Your task to perform on an android device: all mails in gmail Image 0: 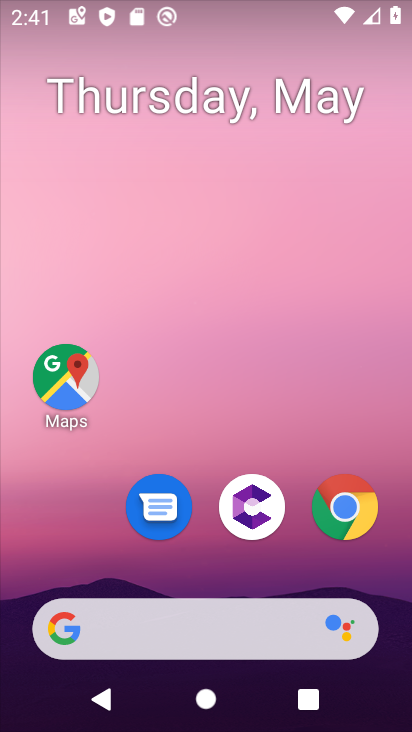
Step 0: press home button
Your task to perform on an android device: all mails in gmail Image 1: 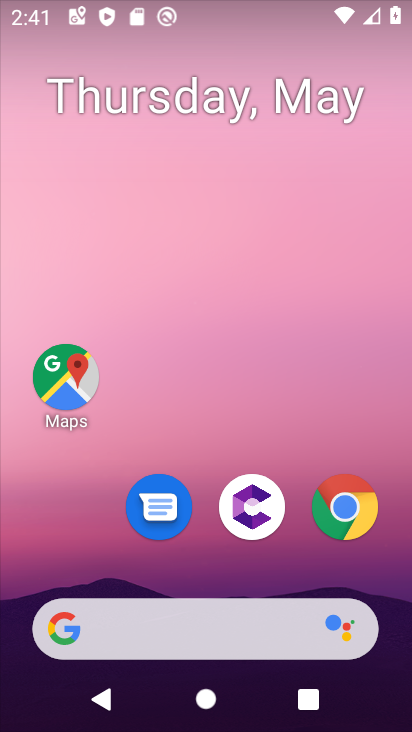
Step 1: drag from (166, 569) to (142, 208)
Your task to perform on an android device: all mails in gmail Image 2: 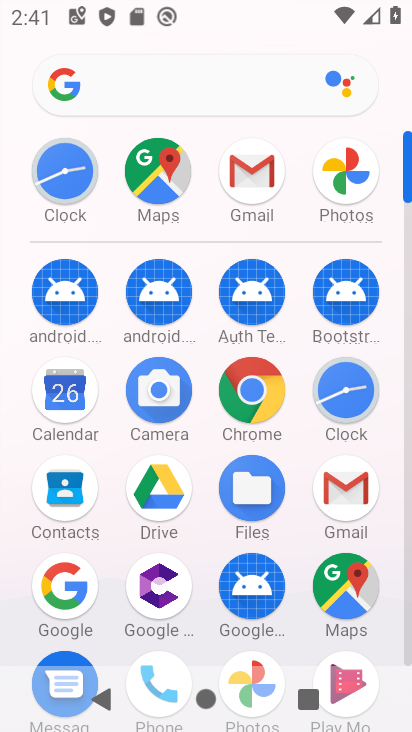
Step 2: click (262, 178)
Your task to perform on an android device: all mails in gmail Image 3: 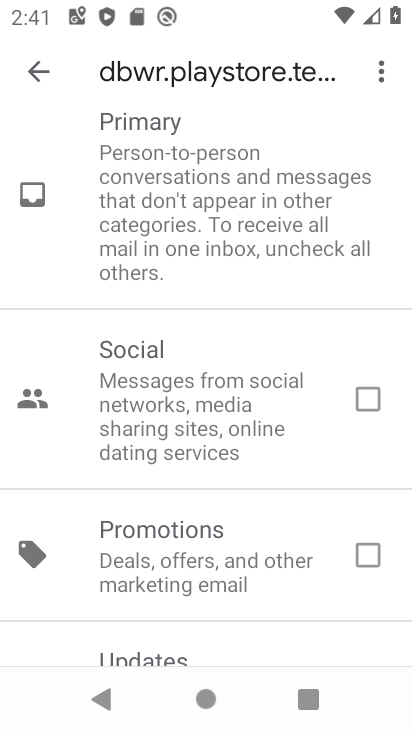
Step 3: click (42, 85)
Your task to perform on an android device: all mails in gmail Image 4: 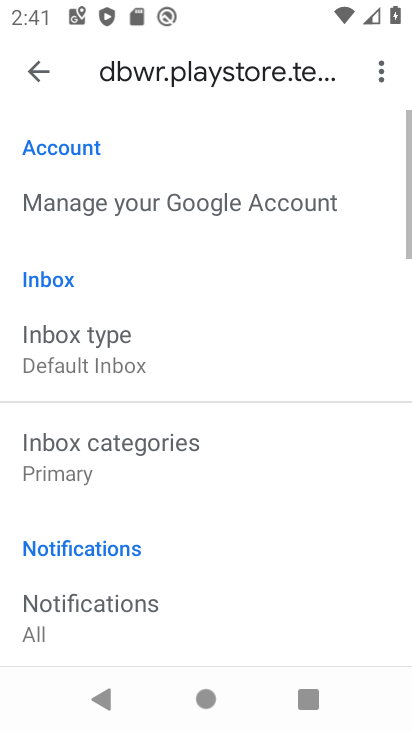
Step 4: click (44, 85)
Your task to perform on an android device: all mails in gmail Image 5: 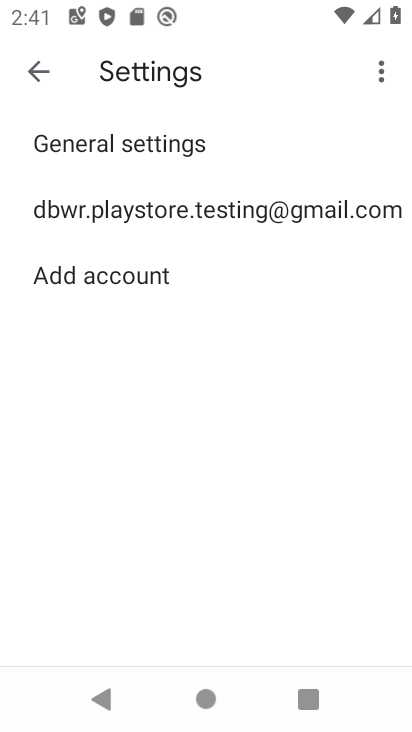
Step 5: click (47, 78)
Your task to perform on an android device: all mails in gmail Image 6: 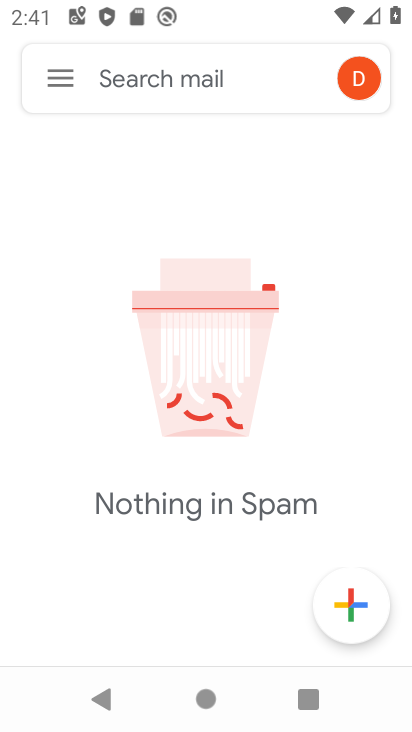
Step 6: click (48, 77)
Your task to perform on an android device: all mails in gmail Image 7: 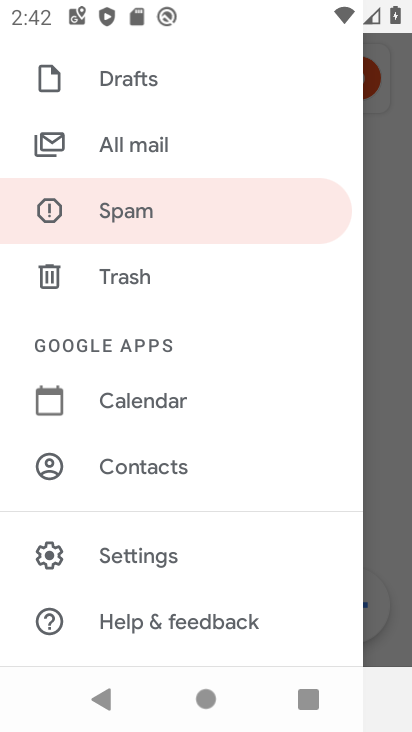
Step 7: click (134, 156)
Your task to perform on an android device: all mails in gmail Image 8: 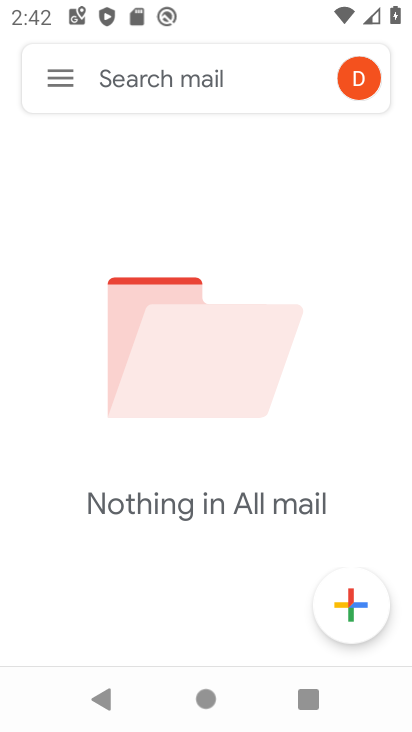
Step 8: task complete